Your task to perform on an android device: Open calendar and show me the fourth week of next month Image 0: 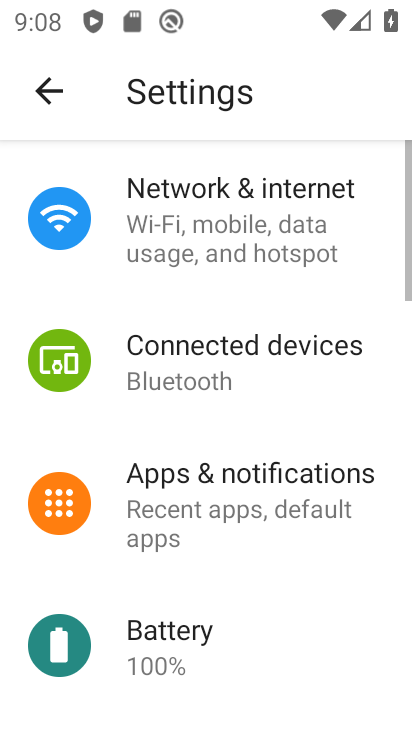
Step 0: press home button
Your task to perform on an android device: Open calendar and show me the fourth week of next month Image 1: 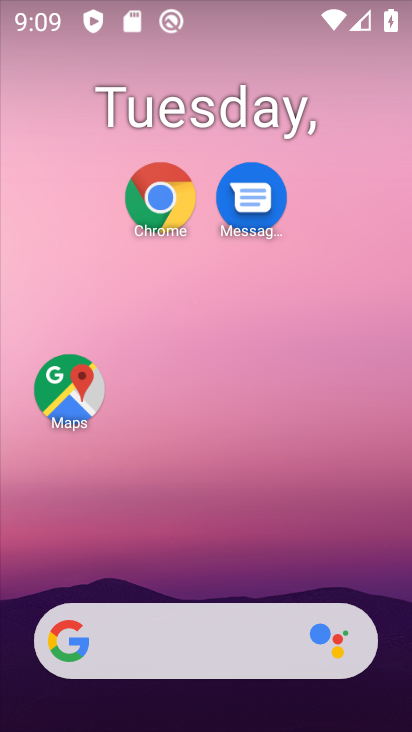
Step 1: drag from (192, 584) to (360, 197)
Your task to perform on an android device: Open calendar and show me the fourth week of next month Image 2: 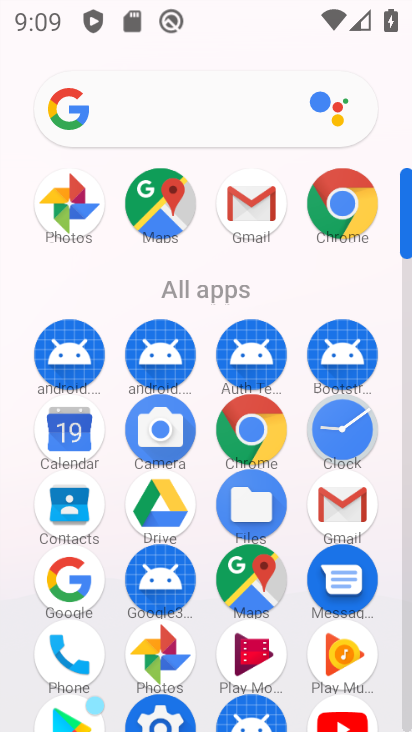
Step 2: click (79, 432)
Your task to perform on an android device: Open calendar and show me the fourth week of next month Image 3: 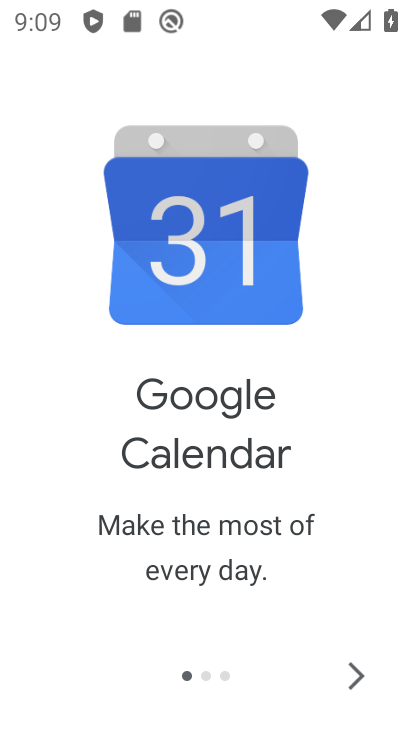
Step 3: click (354, 671)
Your task to perform on an android device: Open calendar and show me the fourth week of next month Image 4: 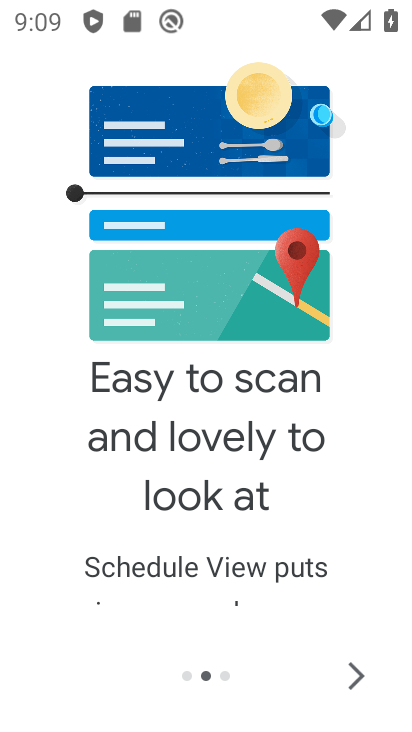
Step 4: click (354, 671)
Your task to perform on an android device: Open calendar and show me the fourth week of next month Image 5: 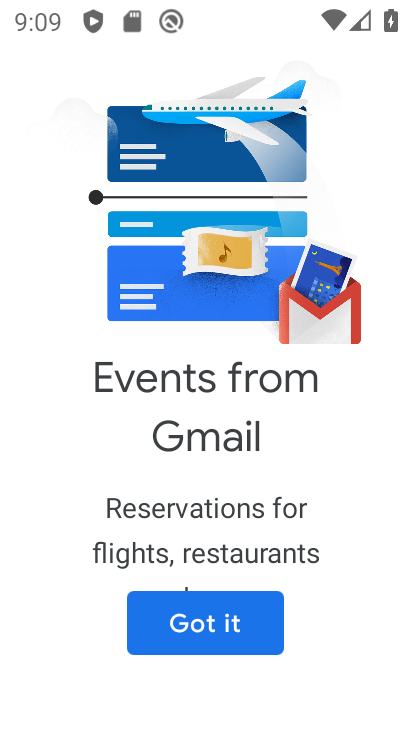
Step 5: click (247, 626)
Your task to perform on an android device: Open calendar and show me the fourth week of next month Image 6: 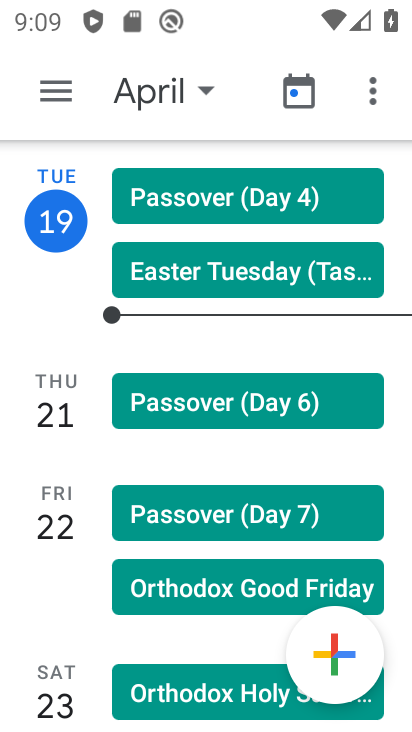
Step 6: click (58, 87)
Your task to perform on an android device: Open calendar and show me the fourth week of next month Image 7: 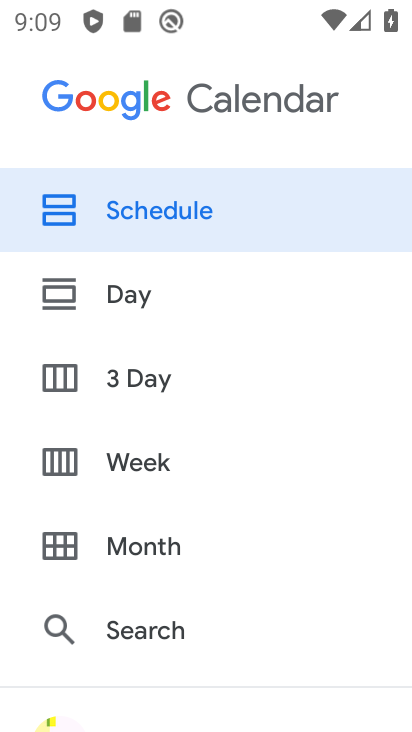
Step 7: click (145, 458)
Your task to perform on an android device: Open calendar and show me the fourth week of next month Image 8: 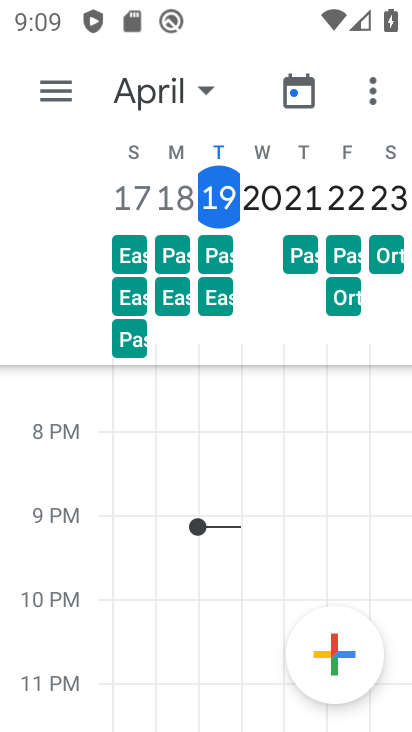
Step 8: task complete